Your task to perform on an android device: Open Youtube and go to the subscriptions tab Image 0: 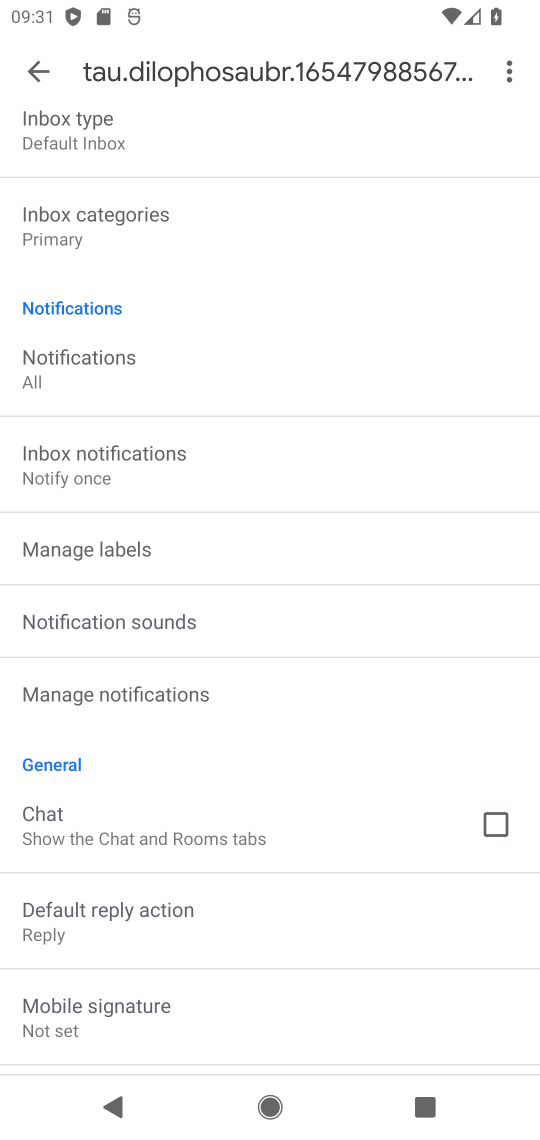
Step 0: press home button
Your task to perform on an android device: Open Youtube and go to the subscriptions tab Image 1: 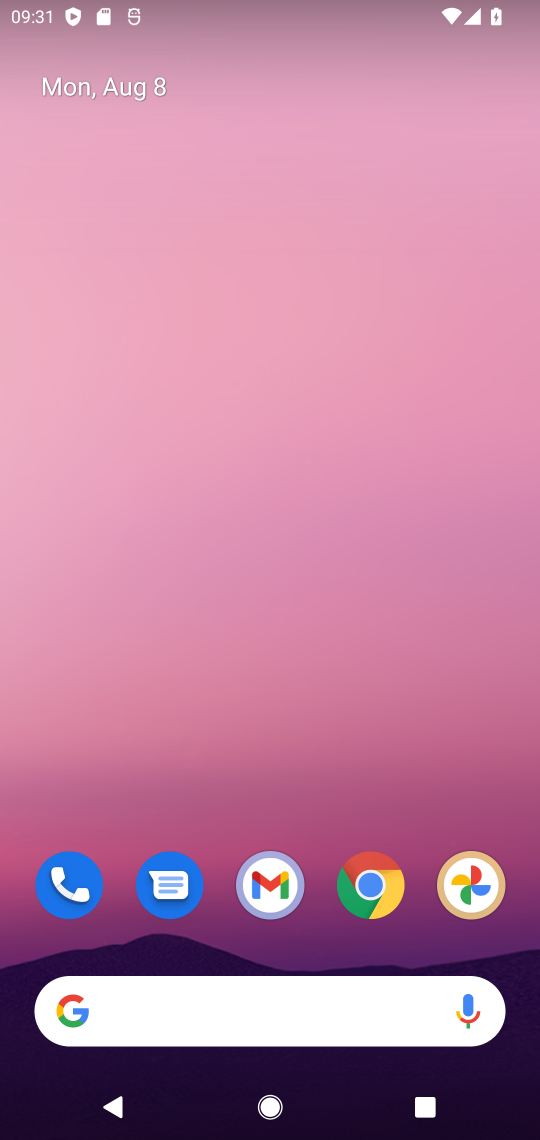
Step 1: drag from (492, 797) to (369, 143)
Your task to perform on an android device: Open Youtube and go to the subscriptions tab Image 2: 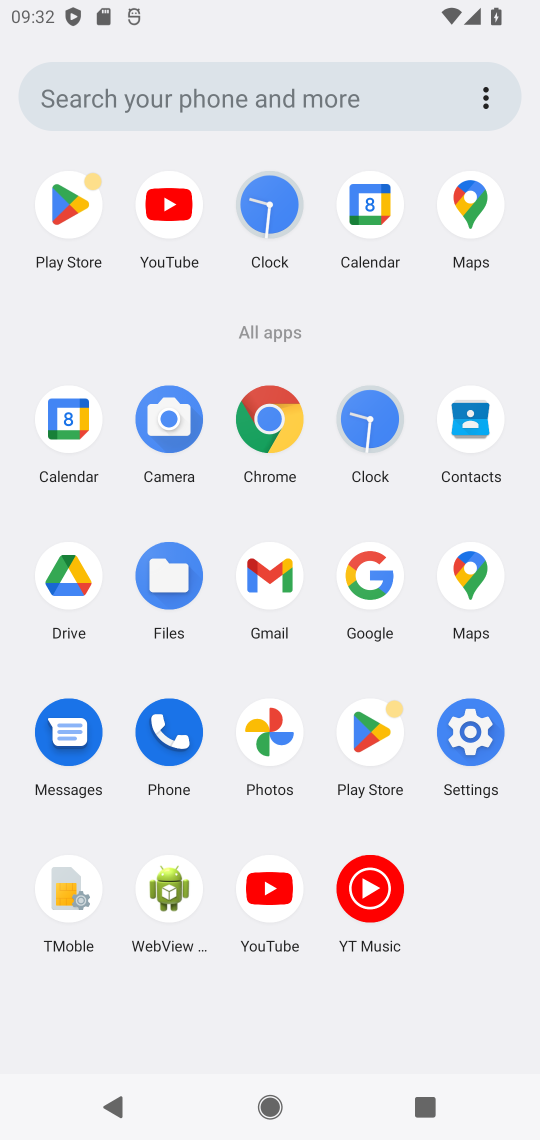
Step 2: click (145, 275)
Your task to perform on an android device: Open Youtube and go to the subscriptions tab Image 3: 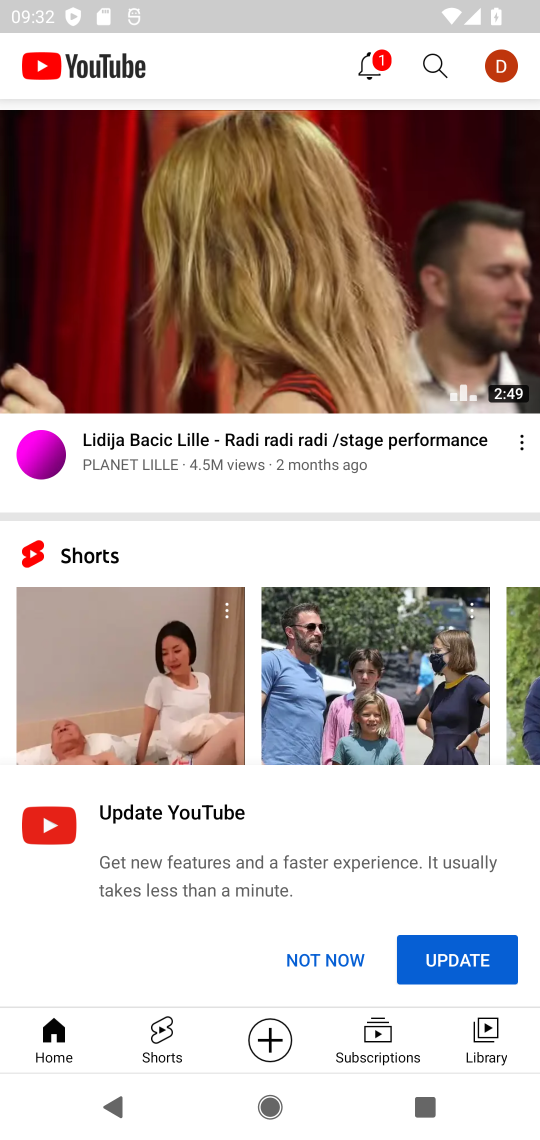
Step 3: click (361, 1051)
Your task to perform on an android device: Open Youtube and go to the subscriptions tab Image 4: 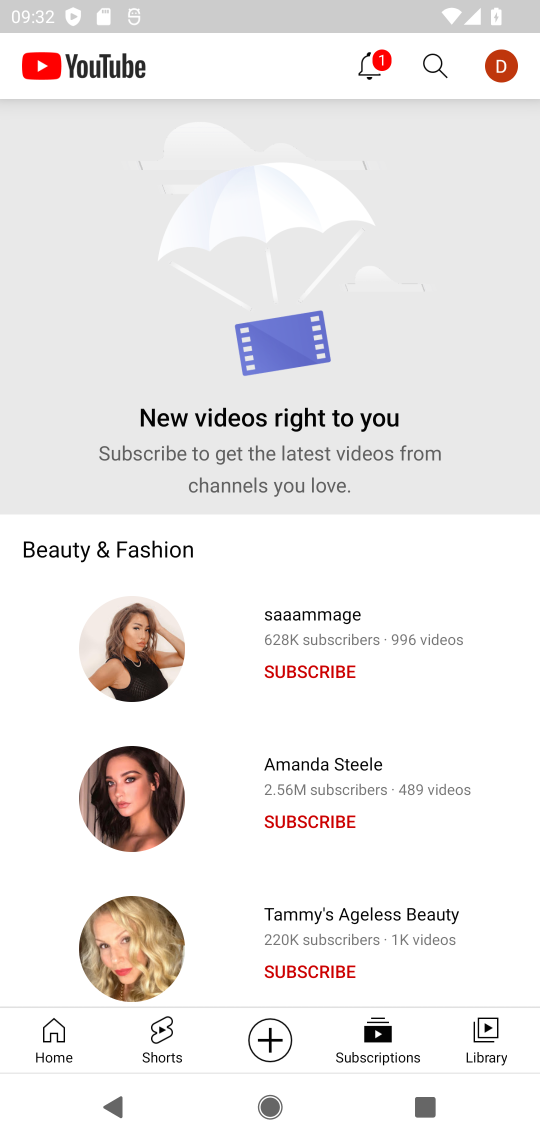
Step 4: task complete